Your task to perform on an android device: What's on my calendar today? Image 0: 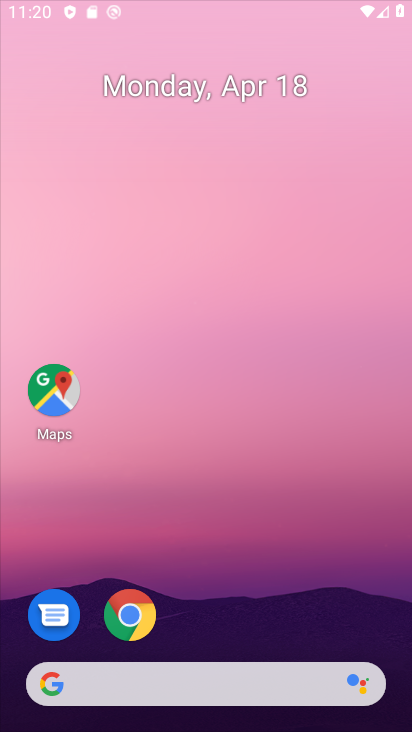
Step 0: drag from (178, 439) to (178, 212)
Your task to perform on an android device: What's on my calendar today? Image 1: 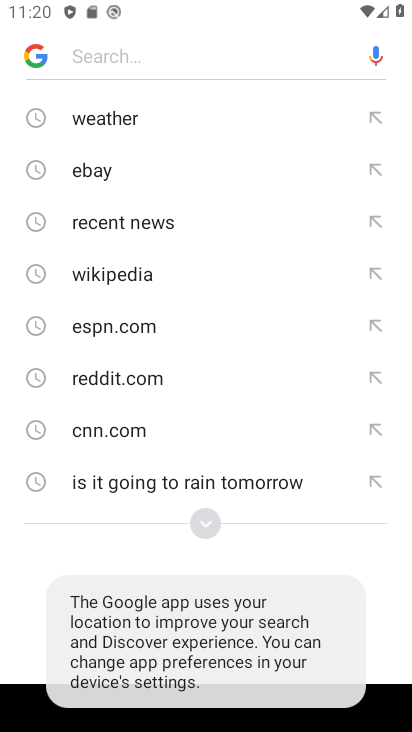
Step 1: press home button
Your task to perform on an android device: What's on my calendar today? Image 2: 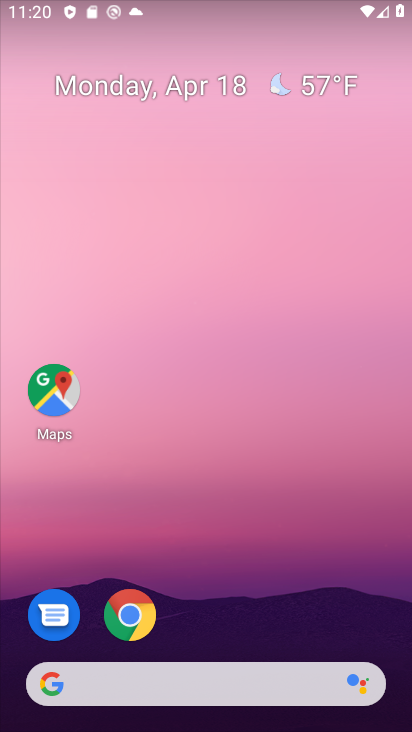
Step 2: drag from (213, 420) to (184, 195)
Your task to perform on an android device: What's on my calendar today? Image 3: 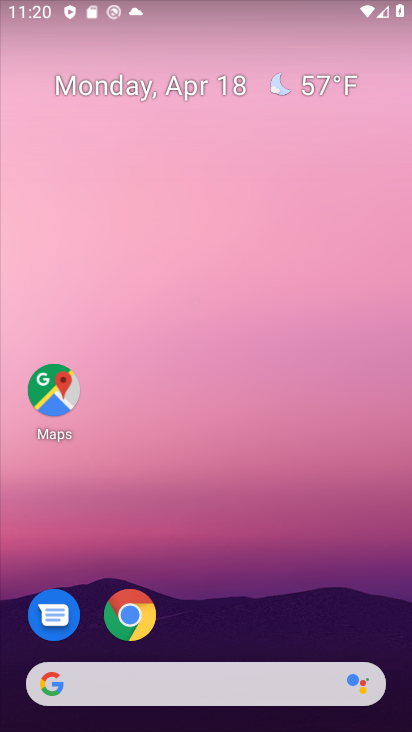
Step 3: drag from (236, 422) to (240, 166)
Your task to perform on an android device: What's on my calendar today? Image 4: 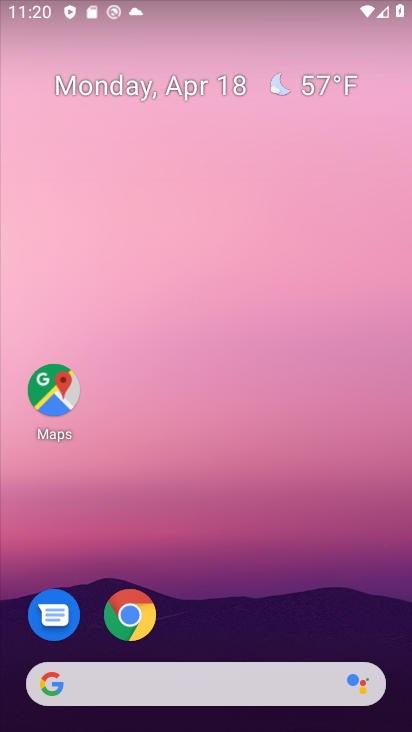
Step 4: drag from (230, 639) to (238, 225)
Your task to perform on an android device: What's on my calendar today? Image 5: 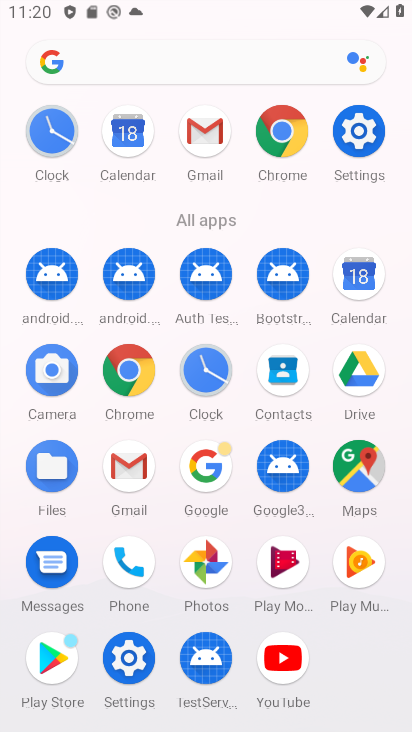
Step 5: click (353, 290)
Your task to perform on an android device: What's on my calendar today? Image 6: 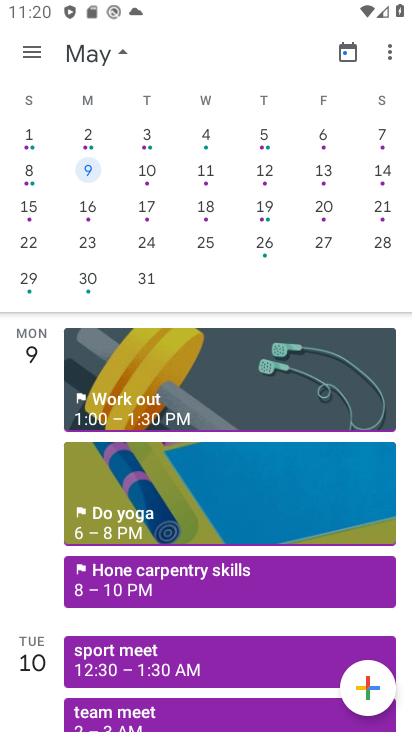
Step 6: drag from (168, 209) to (411, 215)
Your task to perform on an android device: What's on my calendar today? Image 7: 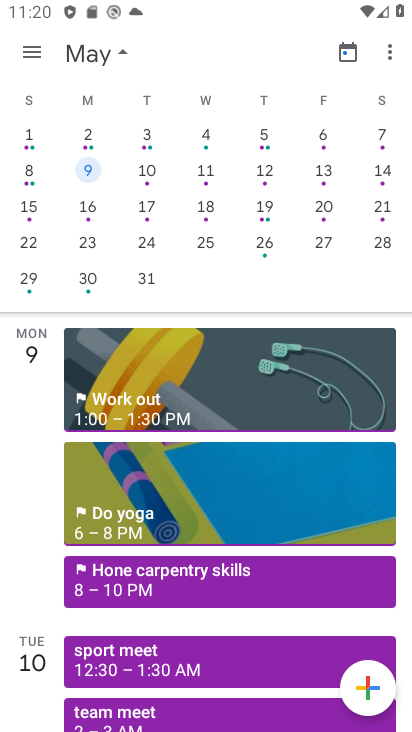
Step 7: drag from (63, 189) to (370, 157)
Your task to perform on an android device: What's on my calendar today? Image 8: 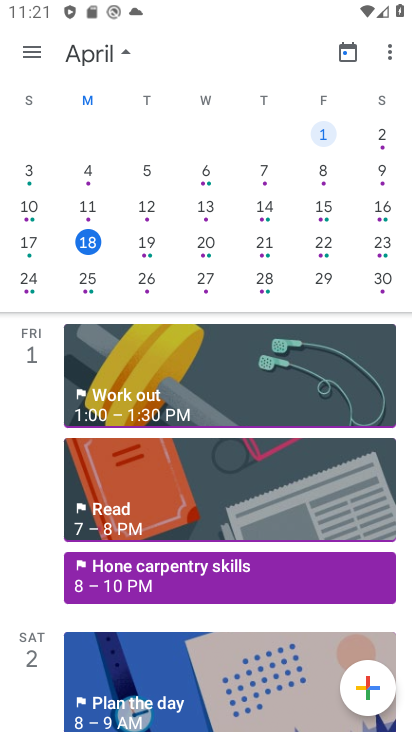
Step 8: click (88, 237)
Your task to perform on an android device: What's on my calendar today? Image 9: 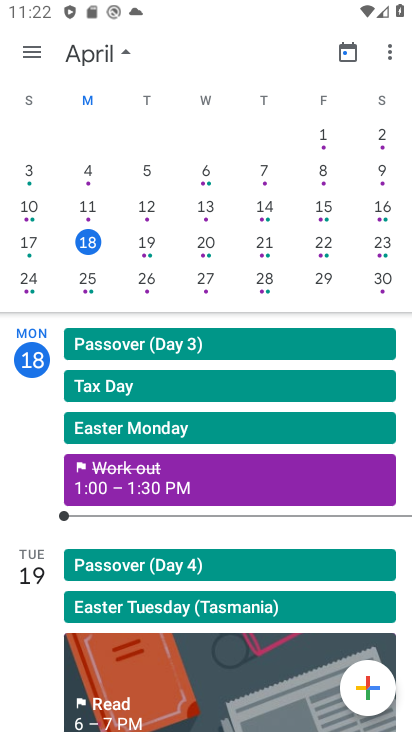
Step 9: click (158, 420)
Your task to perform on an android device: What's on my calendar today? Image 10: 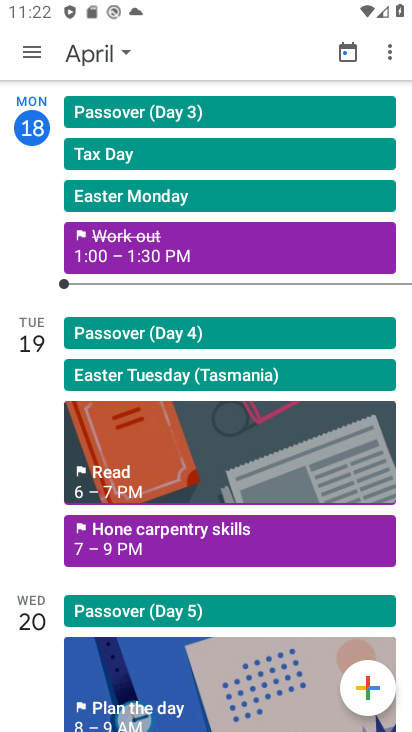
Step 10: task complete